Your task to perform on an android device: Show me popular games on the Play Store Image 0: 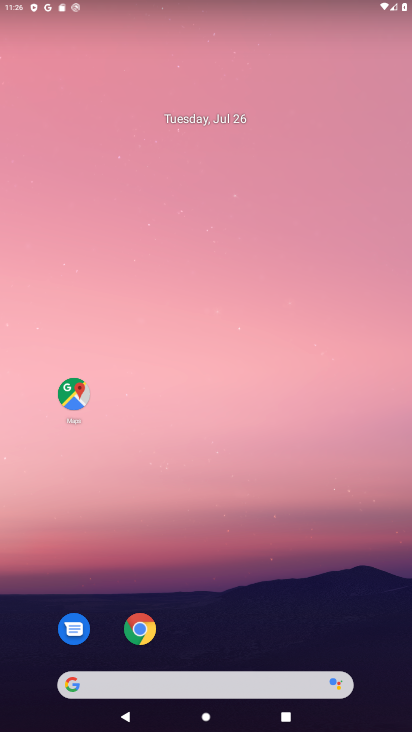
Step 0: drag from (217, 632) to (219, 103)
Your task to perform on an android device: Show me popular games on the Play Store Image 1: 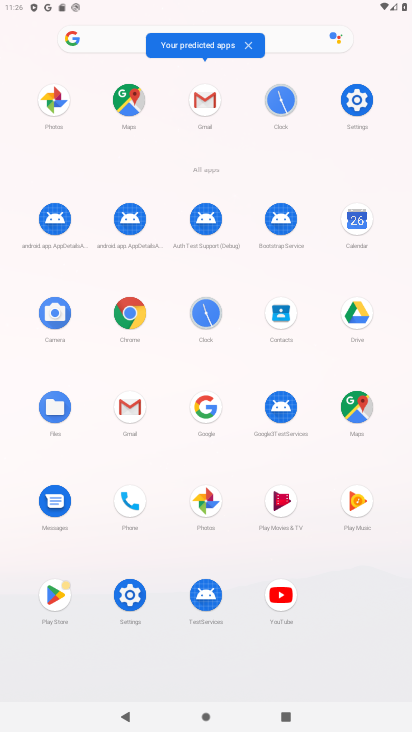
Step 1: click (54, 592)
Your task to perform on an android device: Show me popular games on the Play Store Image 2: 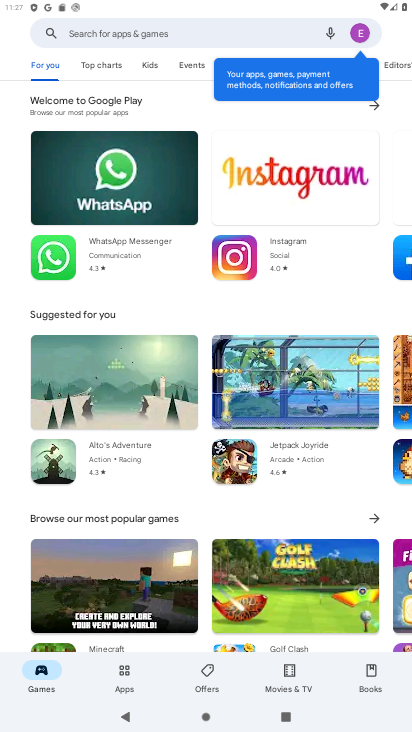
Step 2: click (374, 517)
Your task to perform on an android device: Show me popular games on the Play Store Image 3: 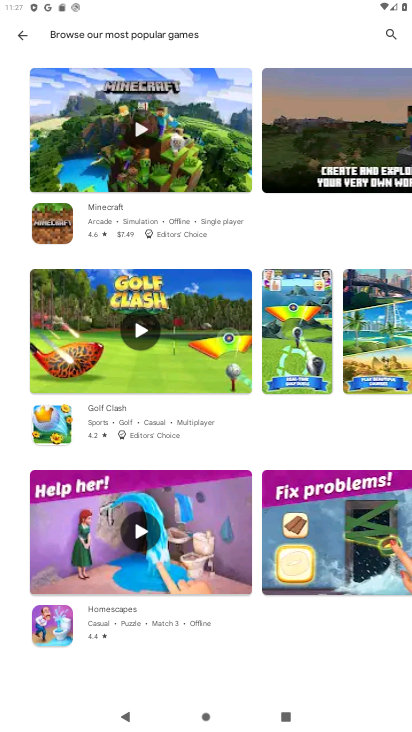
Step 3: task complete